Your task to perform on an android device: open app "Google Translate" Image 0: 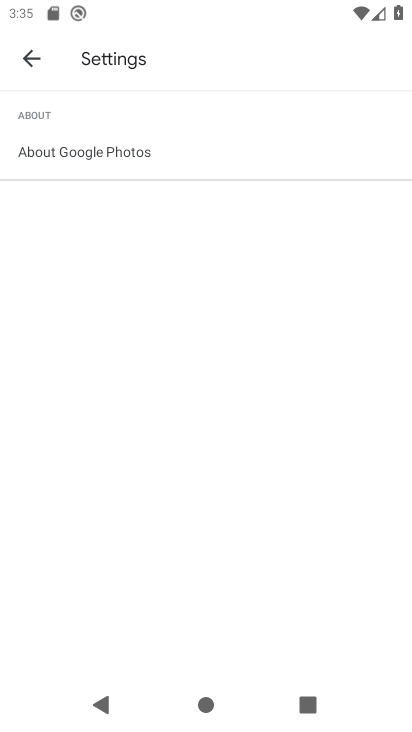
Step 0: press home button
Your task to perform on an android device: open app "Google Translate" Image 1: 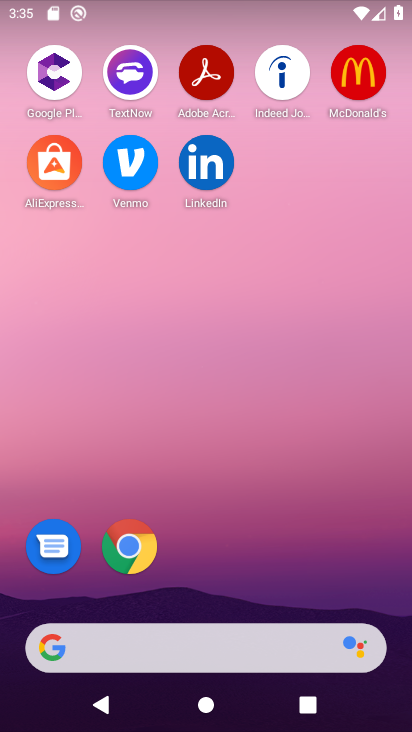
Step 1: drag from (382, 599) to (344, 150)
Your task to perform on an android device: open app "Google Translate" Image 2: 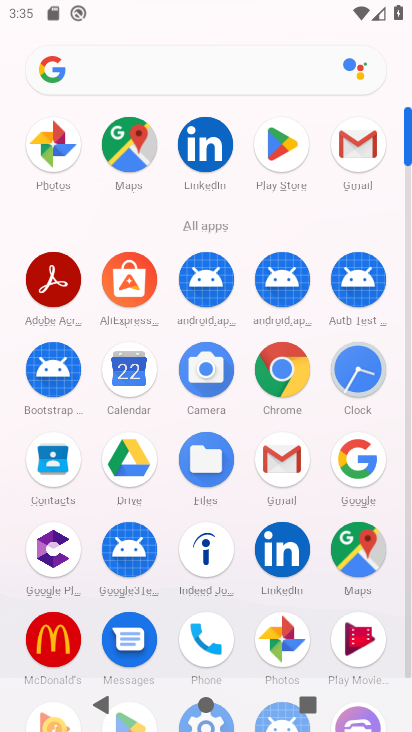
Step 2: drag from (241, 602) to (232, 299)
Your task to perform on an android device: open app "Google Translate" Image 3: 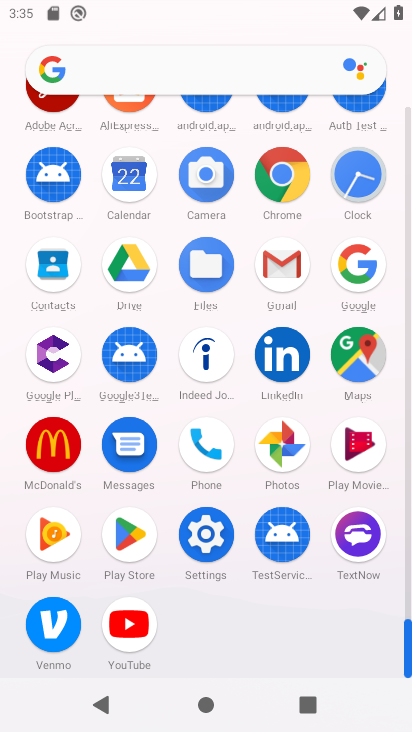
Step 3: click (133, 534)
Your task to perform on an android device: open app "Google Translate" Image 4: 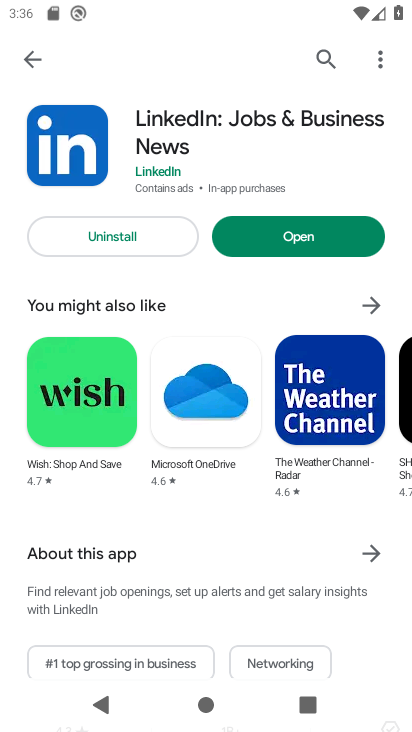
Step 4: click (320, 54)
Your task to perform on an android device: open app "Google Translate" Image 5: 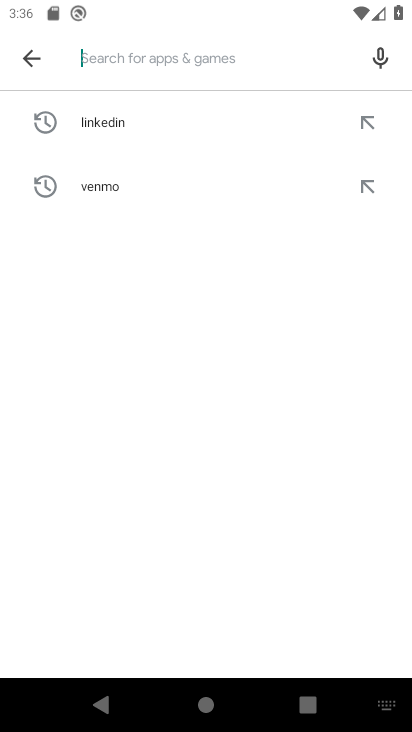
Step 5: type "Google Translate"
Your task to perform on an android device: open app "Google Translate" Image 6: 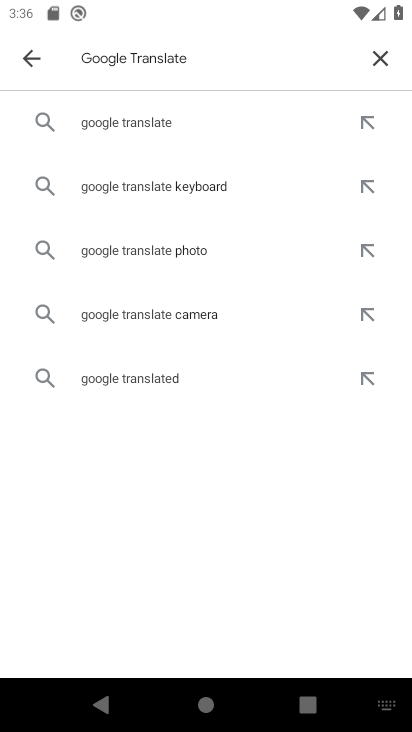
Step 6: click (114, 116)
Your task to perform on an android device: open app "Google Translate" Image 7: 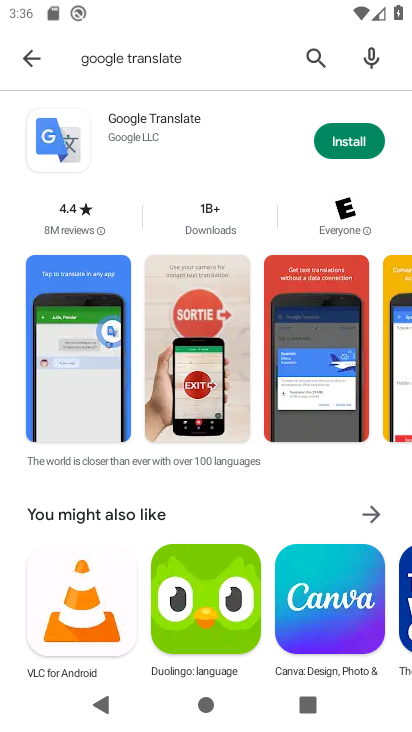
Step 7: click (114, 116)
Your task to perform on an android device: open app "Google Translate" Image 8: 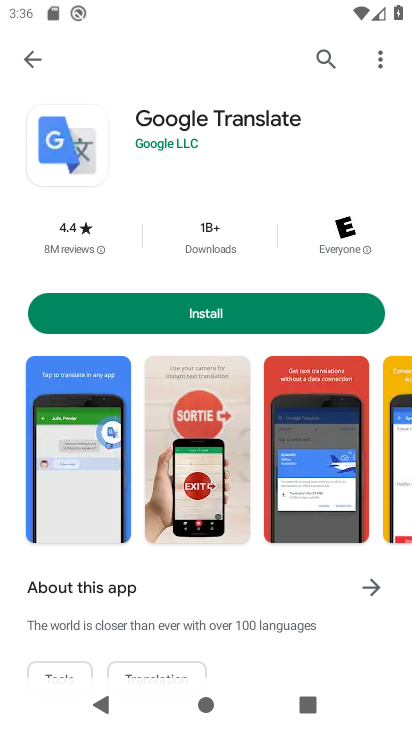
Step 8: task complete